Your task to perform on an android device: find photos in the google photos app Image 0: 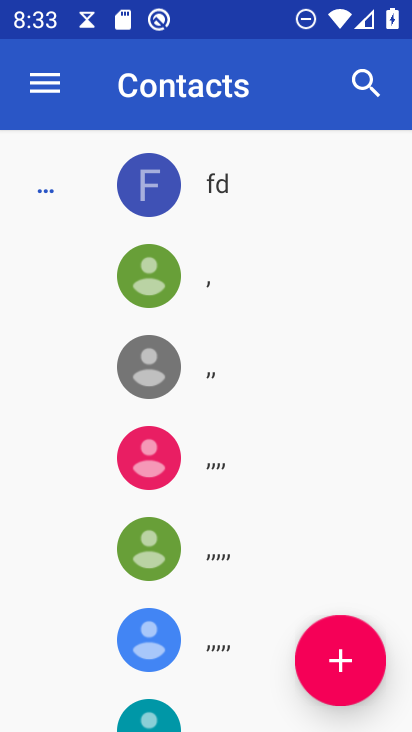
Step 0: press home button
Your task to perform on an android device: find photos in the google photos app Image 1: 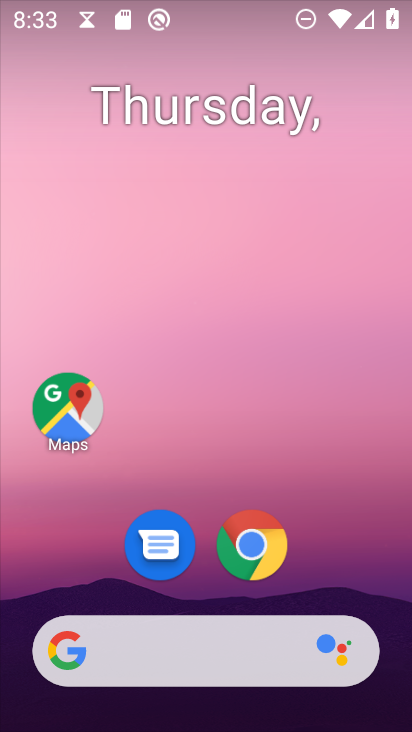
Step 1: drag from (325, 567) to (289, 112)
Your task to perform on an android device: find photos in the google photos app Image 2: 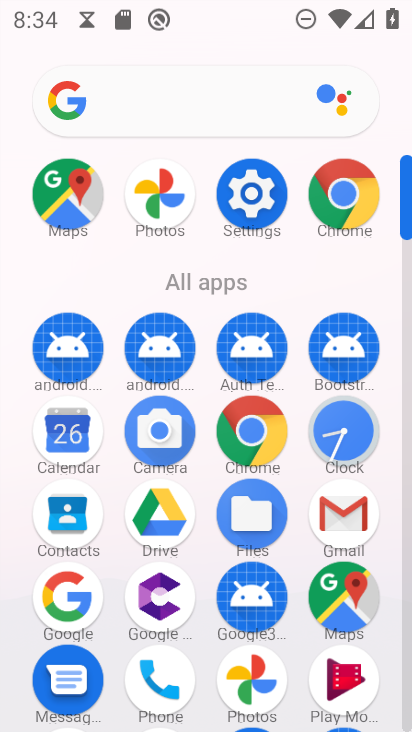
Step 2: click (161, 195)
Your task to perform on an android device: find photos in the google photos app Image 3: 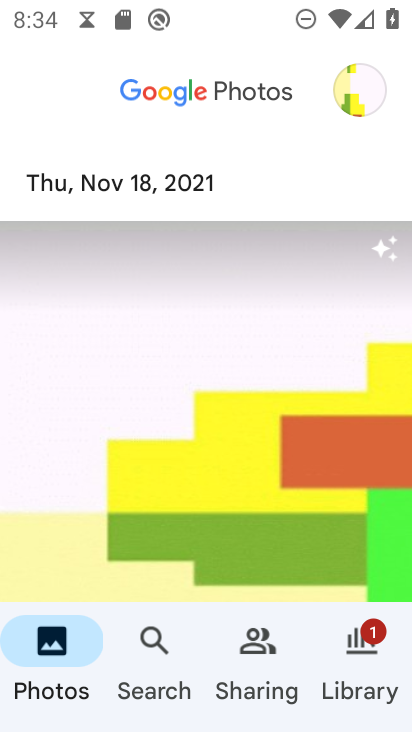
Step 3: task complete